Your task to perform on an android device: Empty the shopping cart on walmart.com. Add macbook pro to the cart on walmart.com Image 0: 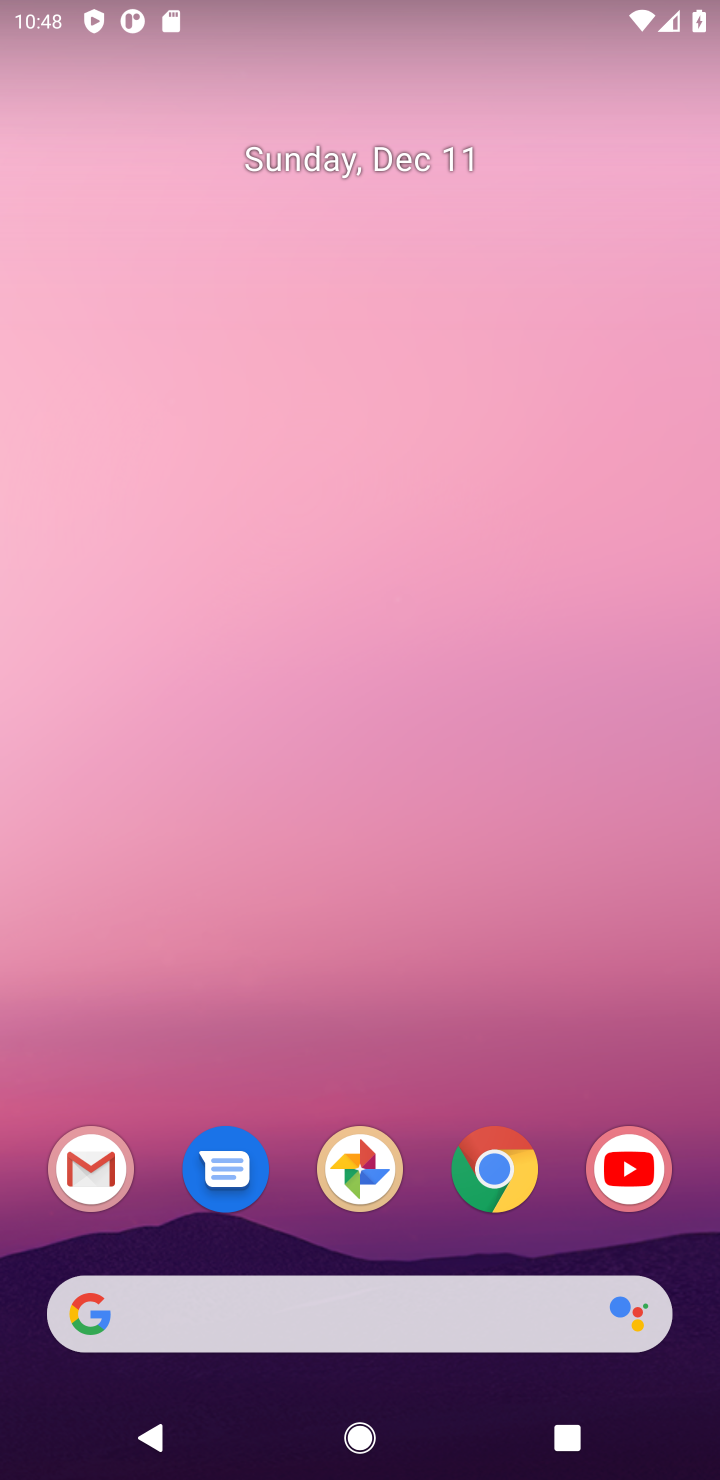
Step 0: click (487, 1171)
Your task to perform on an android device: Empty the shopping cart on walmart.com. Add macbook pro to the cart on walmart.com Image 1: 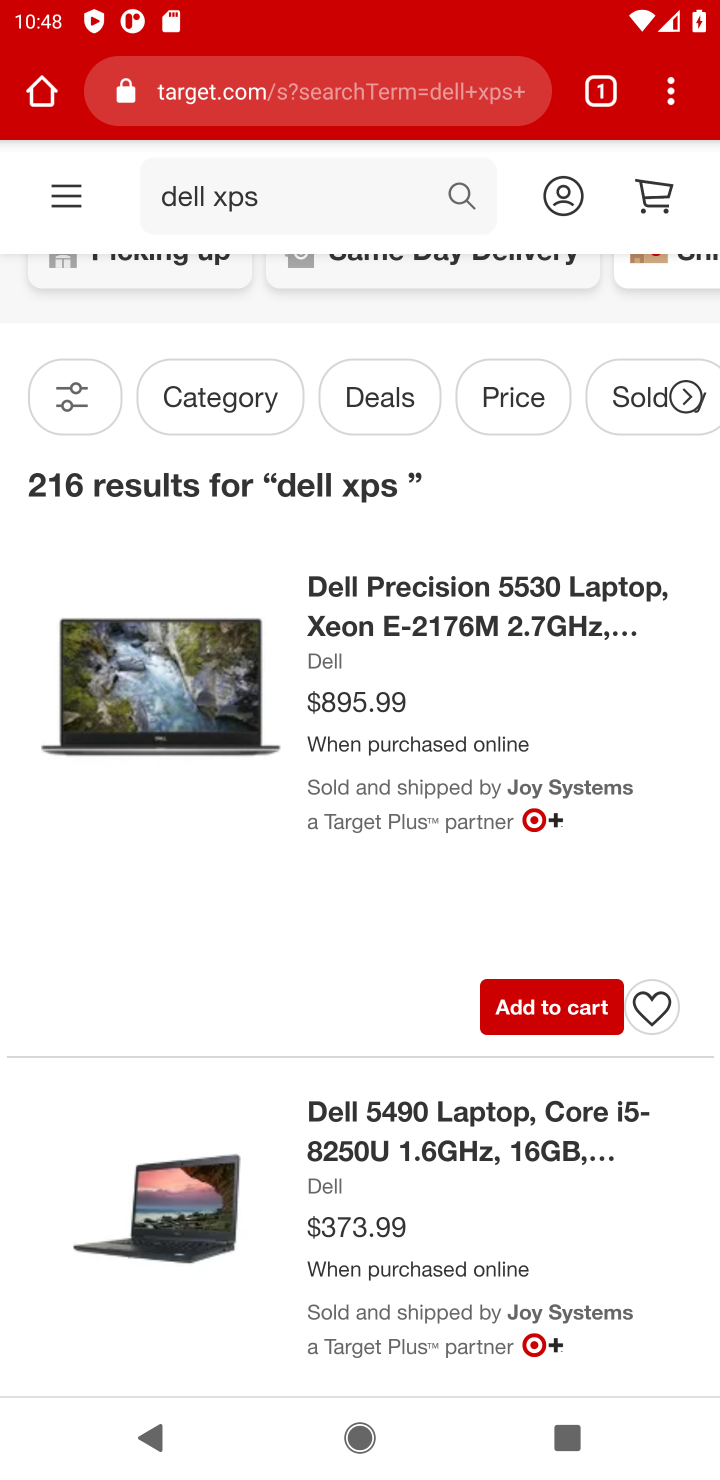
Step 1: click (281, 98)
Your task to perform on an android device: Empty the shopping cart on walmart.com. Add macbook pro to the cart on walmart.com Image 2: 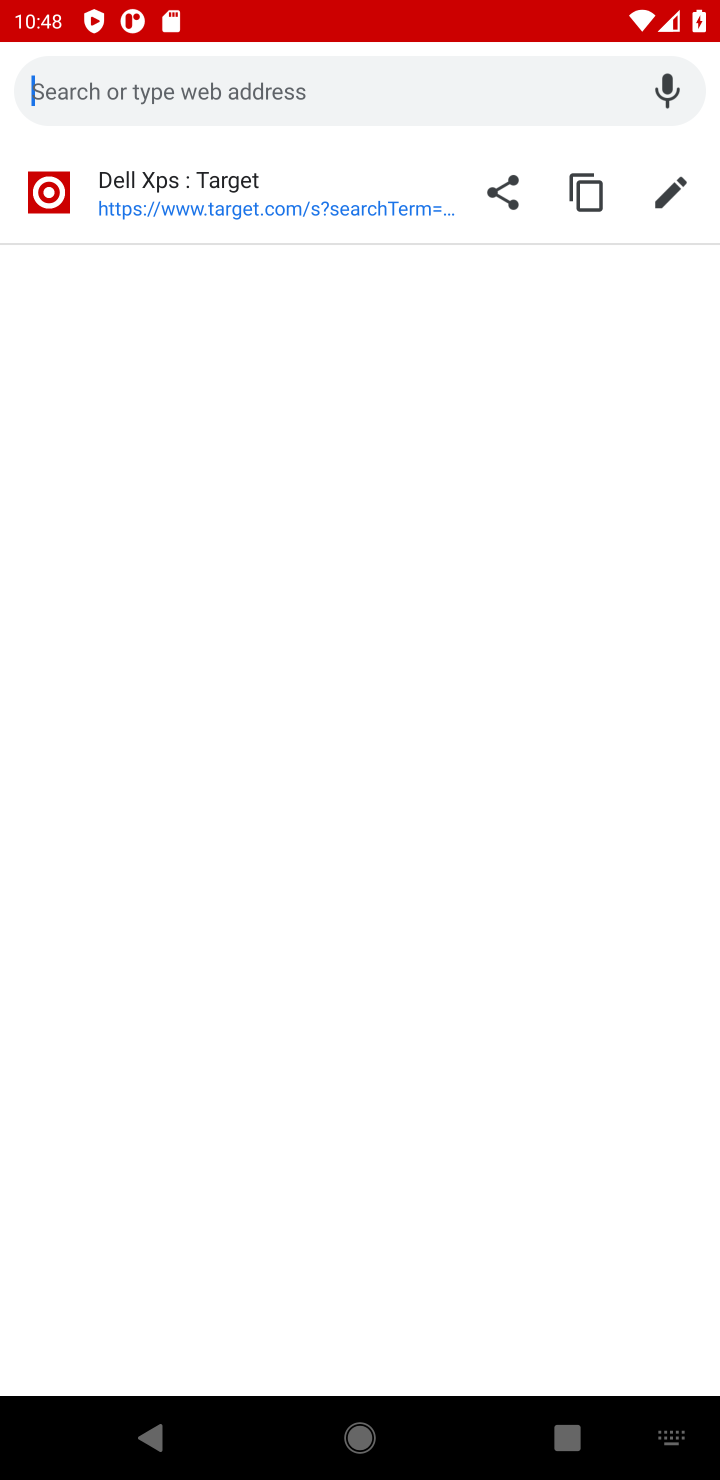
Step 2: type "walmart.com"
Your task to perform on an android device: Empty the shopping cart on walmart.com. Add macbook pro to the cart on walmart.com Image 3: 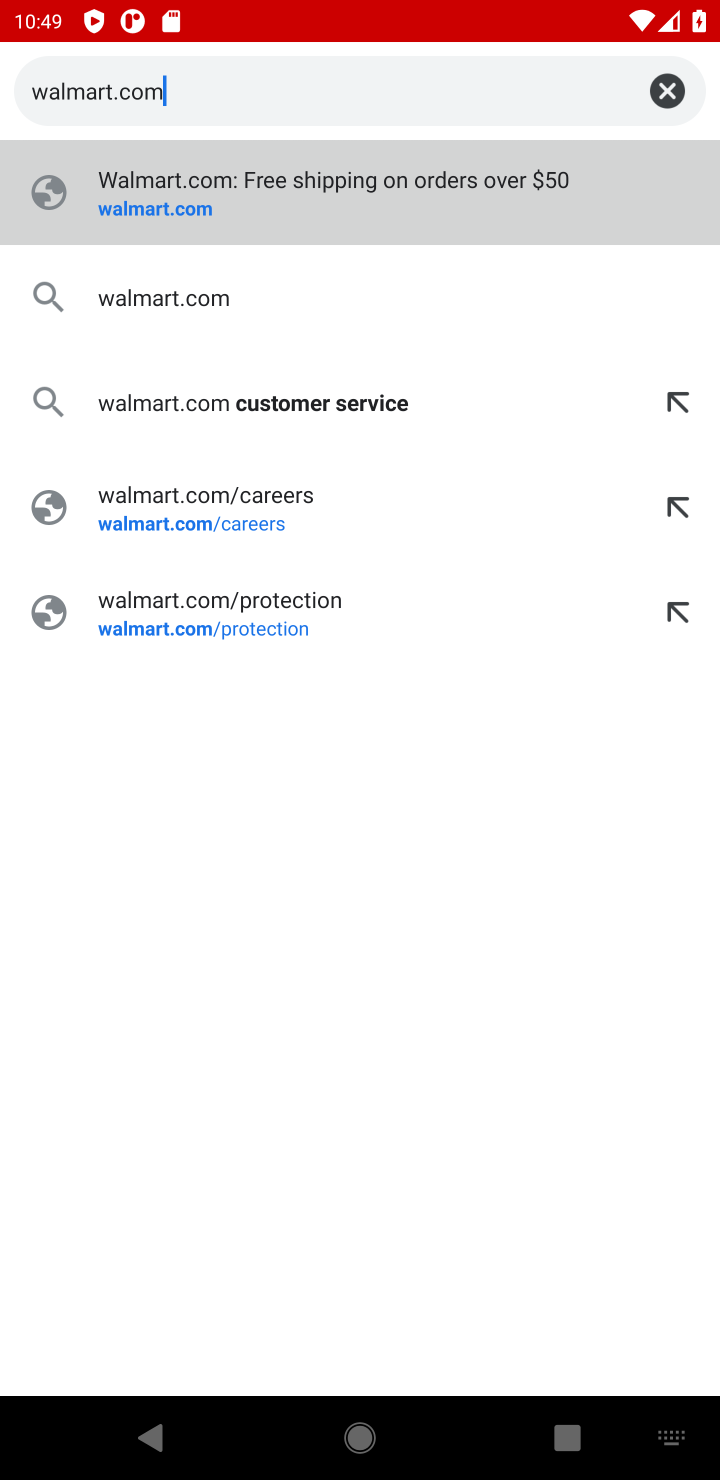
Step 3: click (131, 209)
Your task to perform on an android device: Empty the shopping cart on walmart.com. Add macbook pro to the cart on walmart.com Image 4: 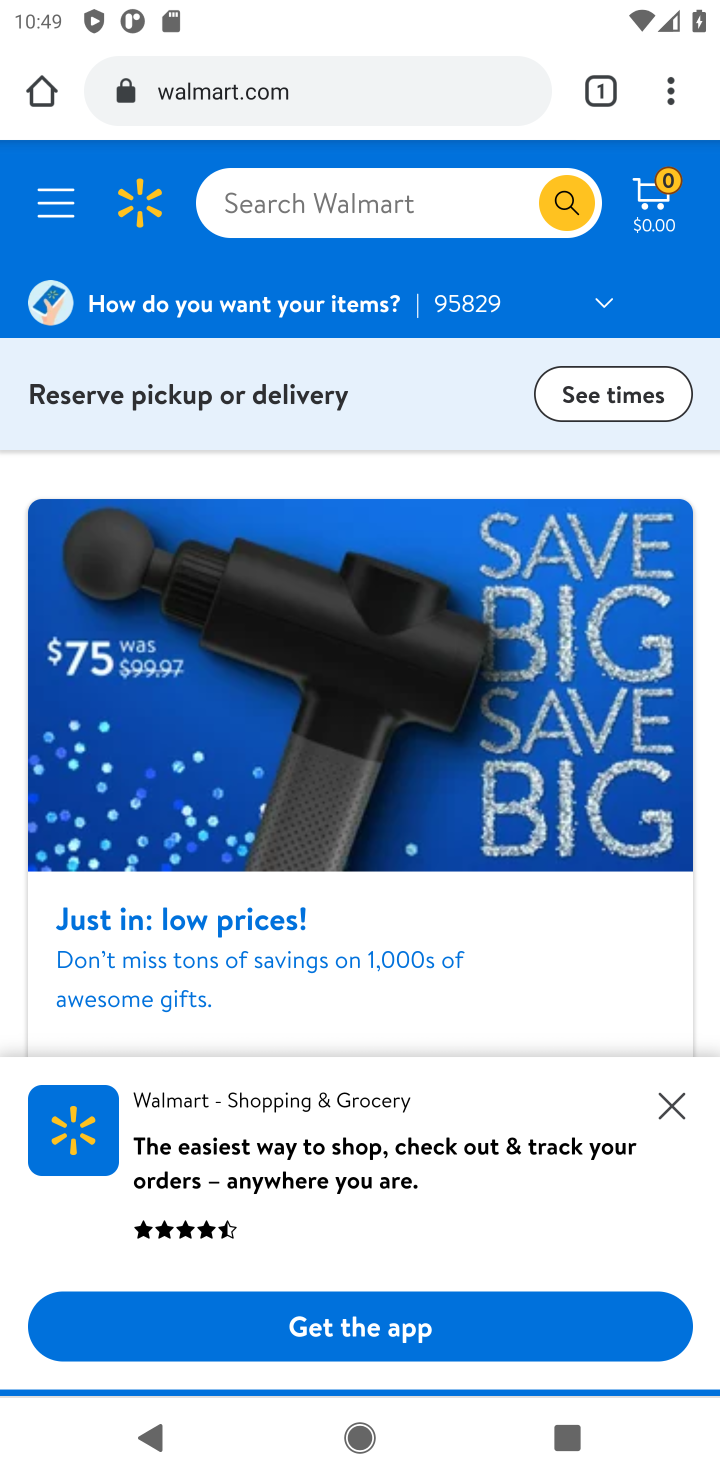
Step 4: click (652, 192)
Your task to perform on an android device: Empty the shopping cart on walmart.com. Add macbook pro to the cart on walmart.com Image 5: 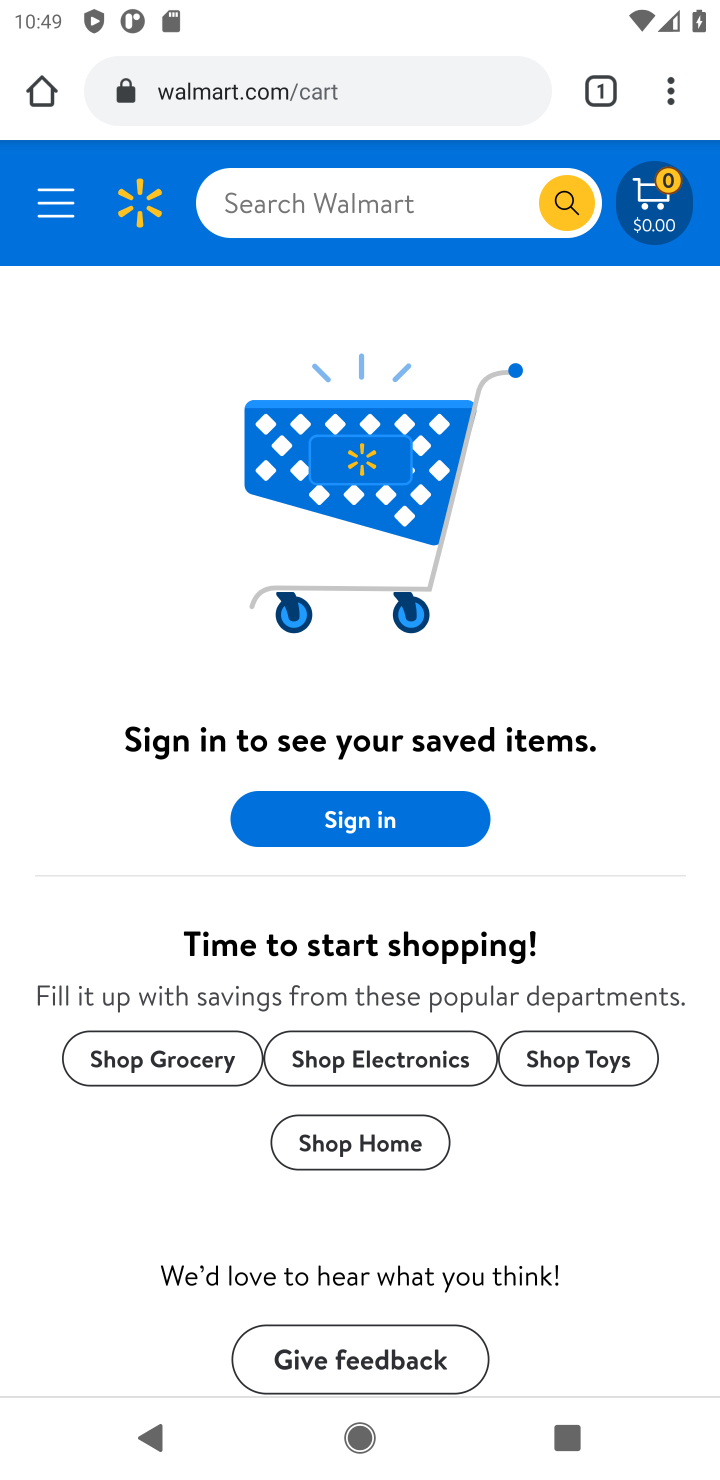
Step 5: click (336, 211)
Your task to perform on an android device: Empty the shopping cart on walmart.com. Add macbook pro to the cart on walmart.com Image 6: 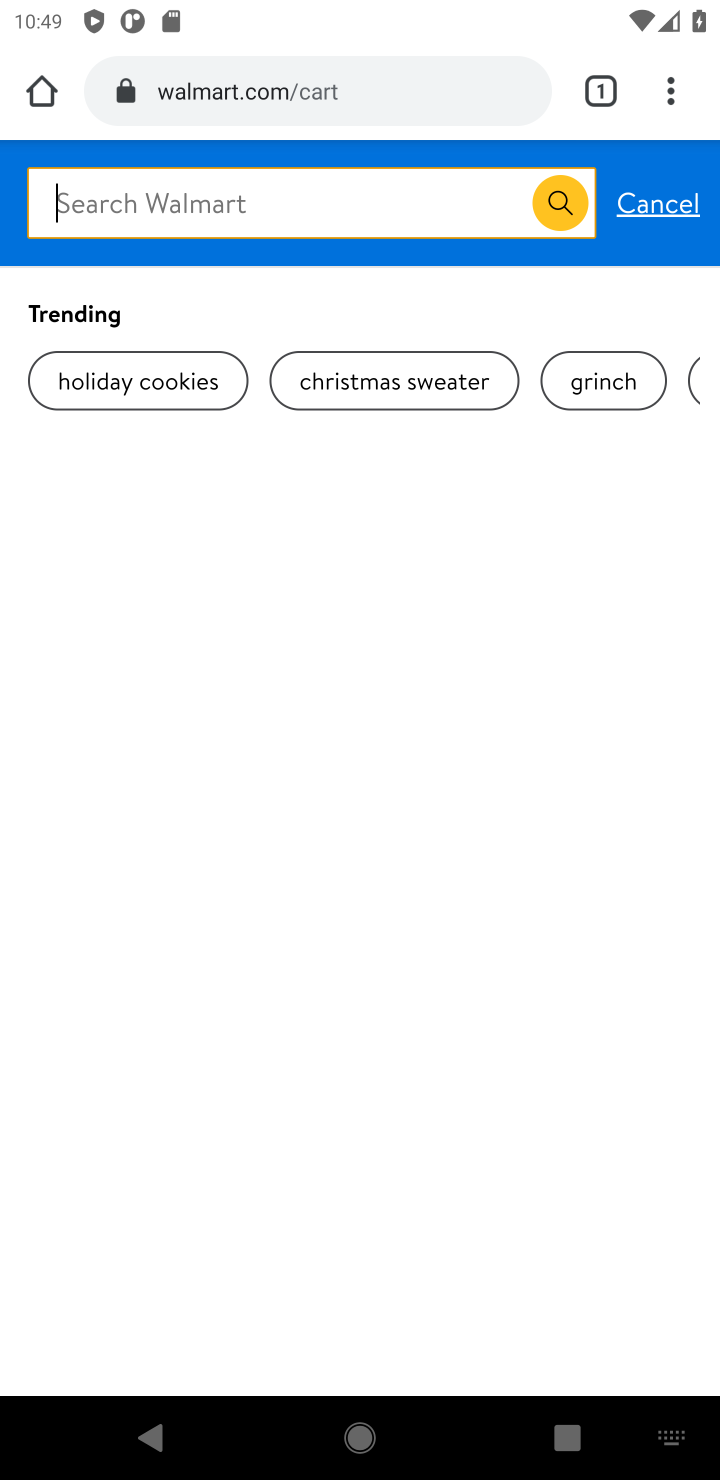
Step 6: type "macbook pro"
Your task to perform on an android device: Empty the shopping cart on walmart.com. Add macbook pro to the cart on walmart.com Image 7: 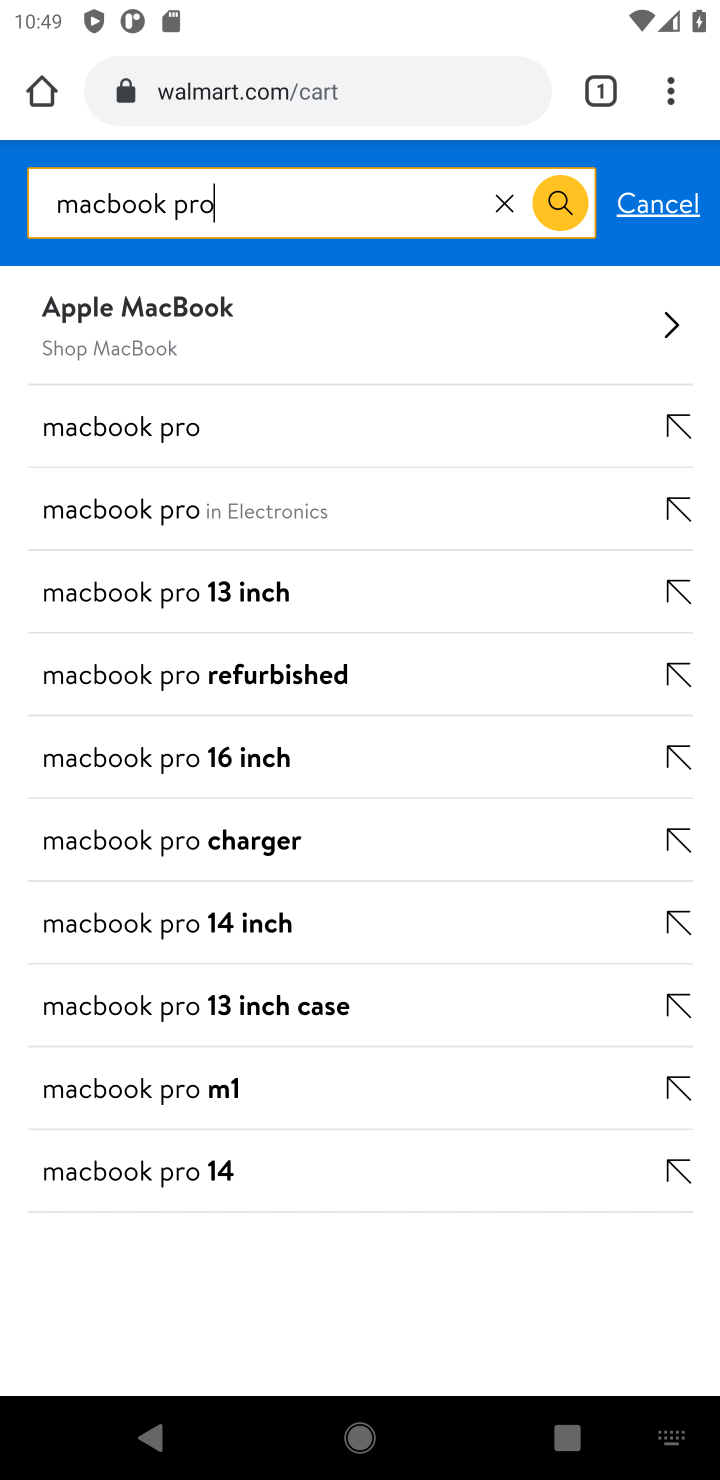
Step 7: click (174, 442)
Your task to perform on an android device: Empty the shopping cart on walmart.com. Add macbook pro to the cart on walmart.com Image 8: 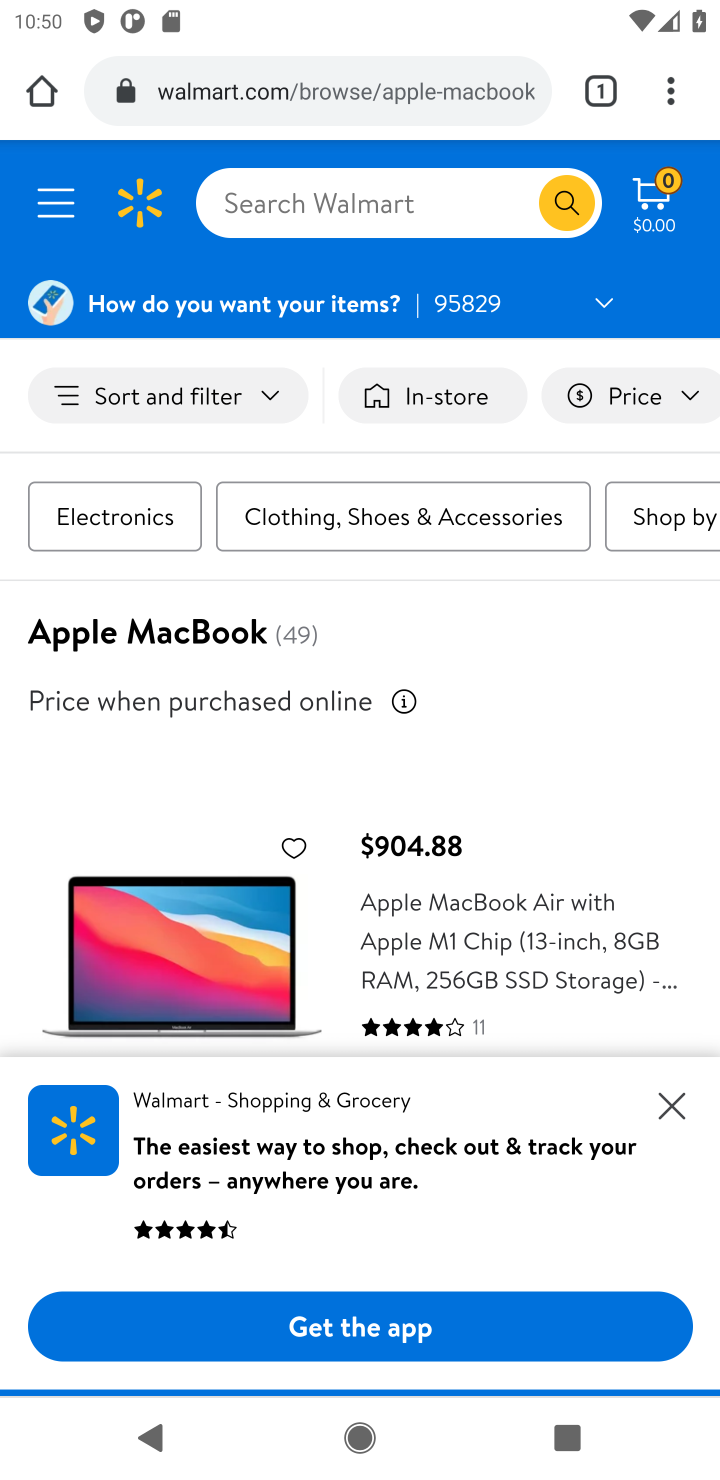
Step 8: drag from (423, 947) to (410, 640)
Your task to perform on an android device: Empty the shopping cart on walmart.com. Add macbook pro to the cart on walmart.com Image 9: 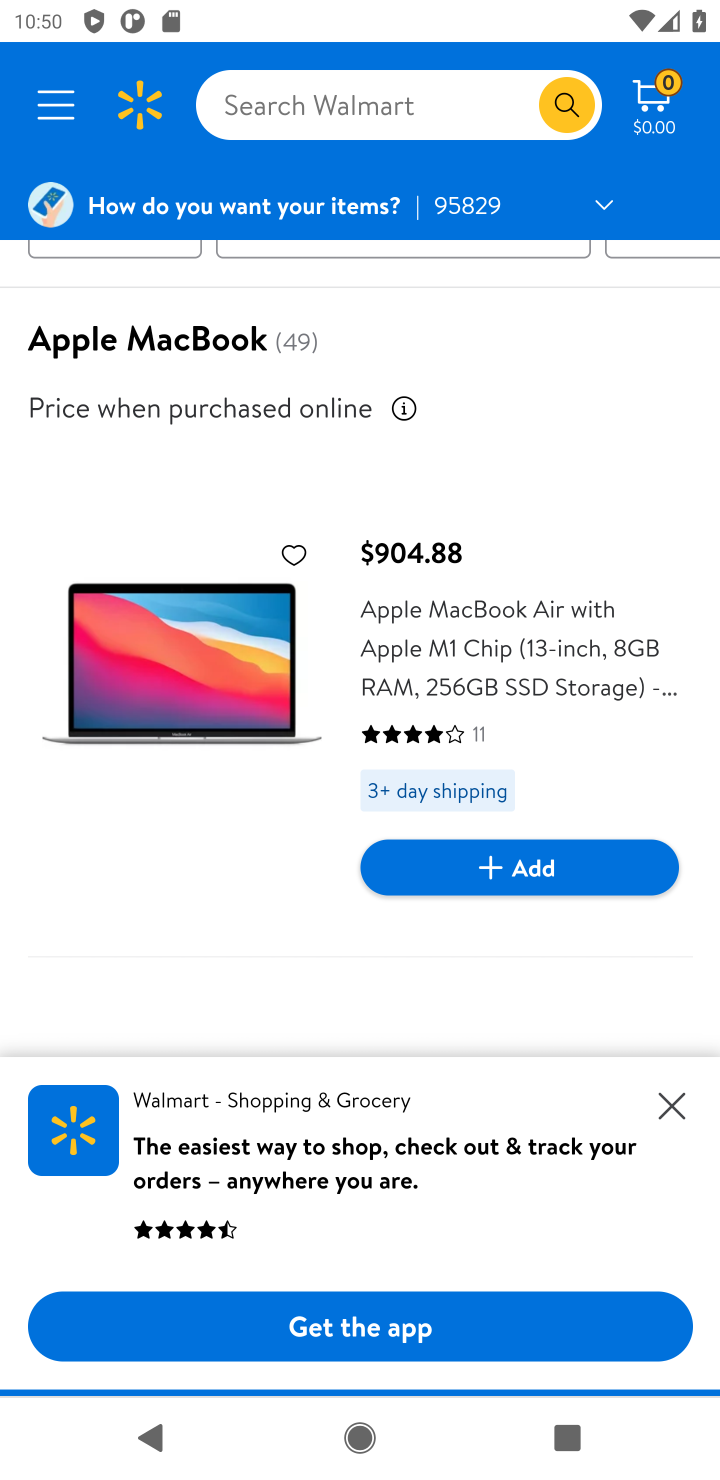
Step 9: drag from (412, 995) to (412, 504)
Your task to perform on an android device: Empty the shopping cart on walmart.com. Add macbook pro to the cart on walmart.com Image 10: 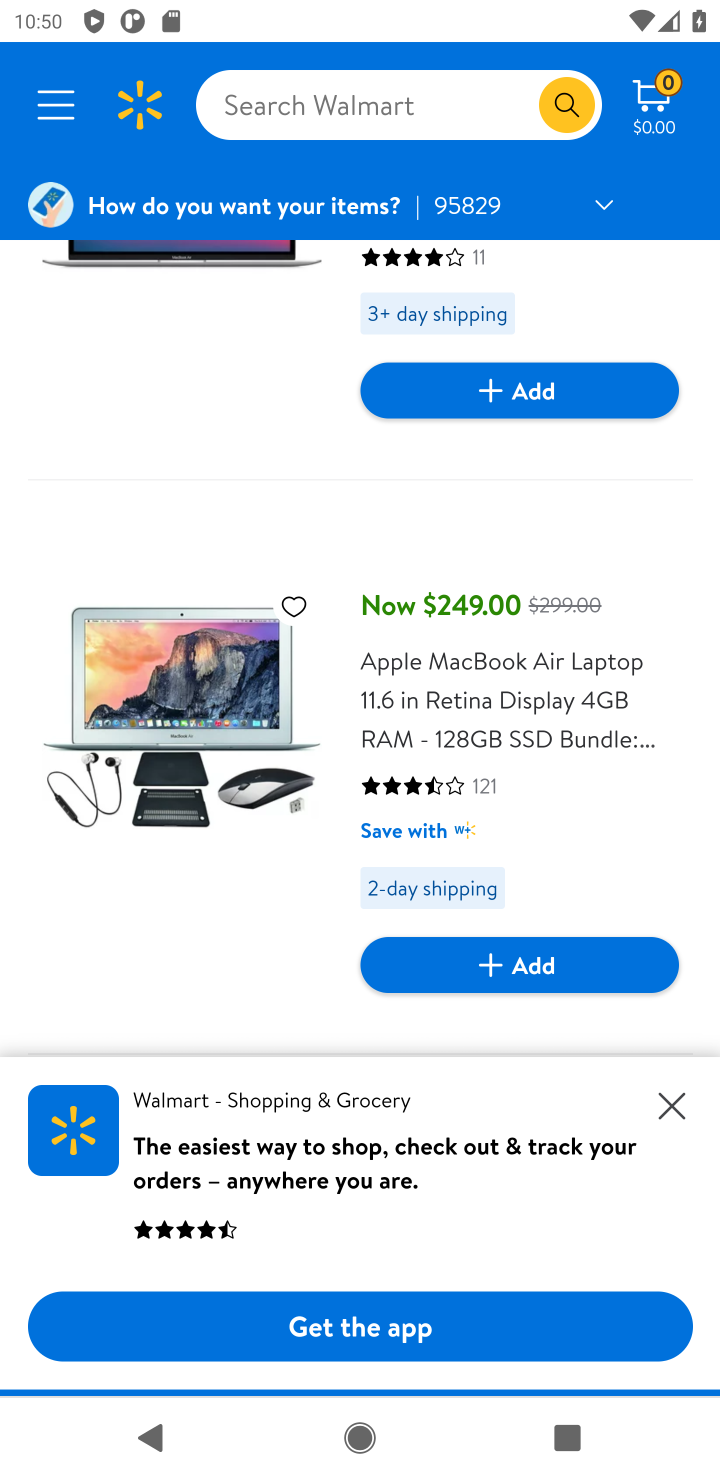
Step 10: click (356, 113)
Your task to perform on an android device: Empty the shopping cart on walmart.com. Add macbook pro to the cart on walmart.com Image 11: 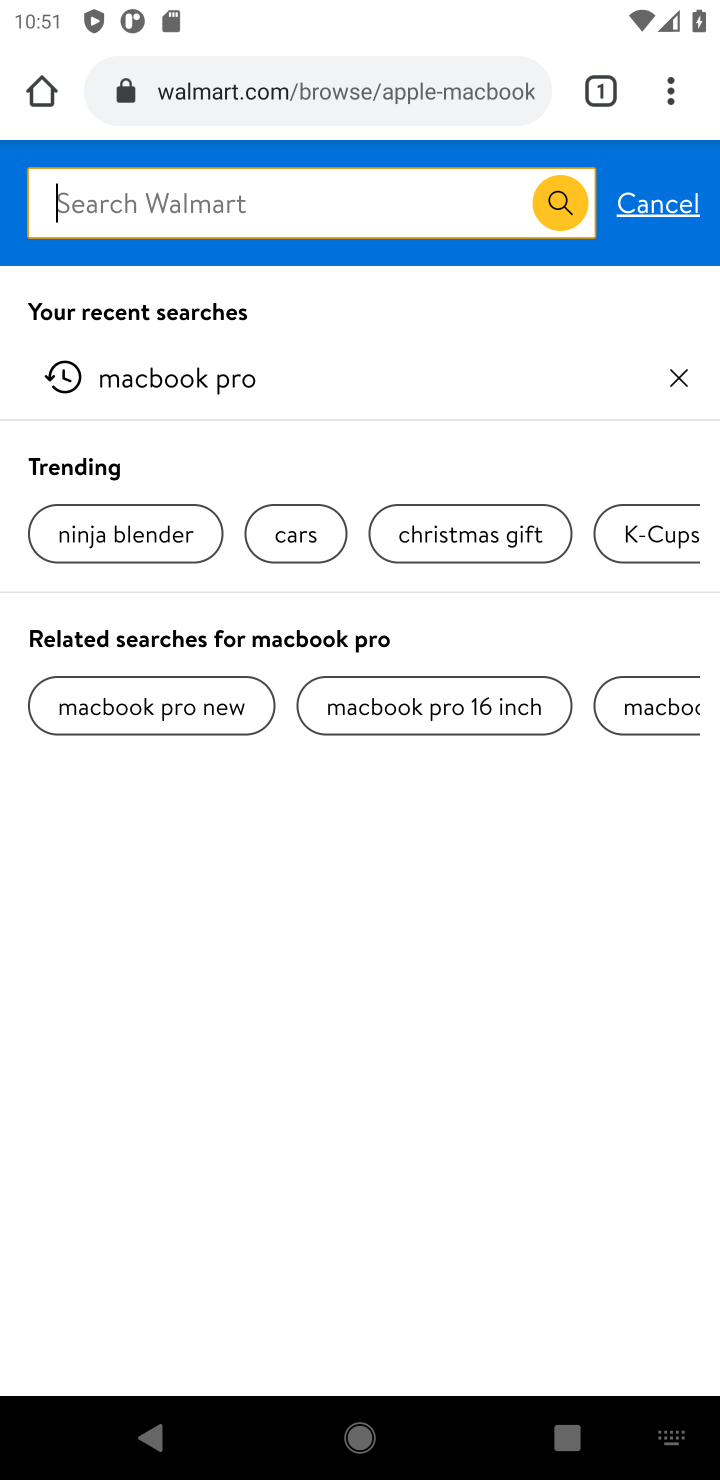
Step 11: click (201, 377)
Your task to perform on an android device: Empty the shopping cart on walmart.com. Add macbook pro to the cart on walmart.com Image 12: 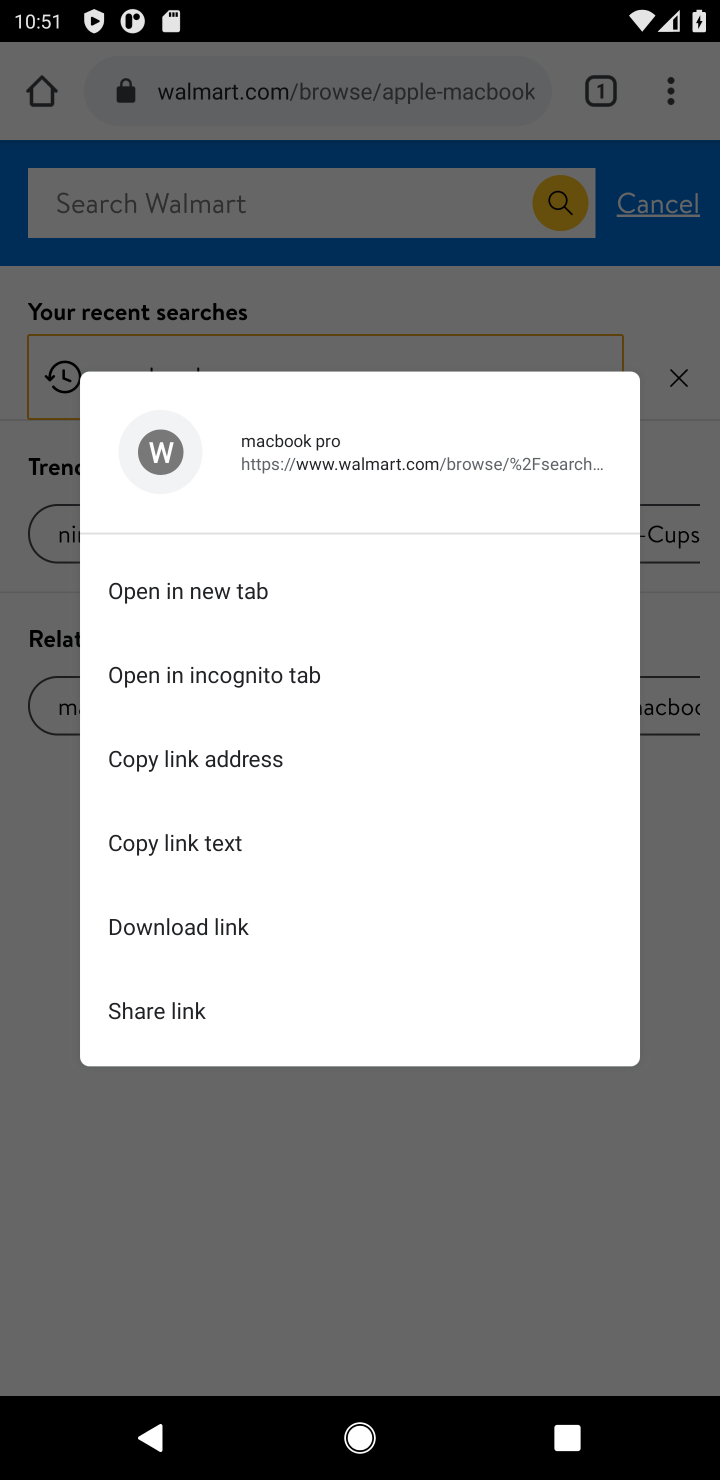
Step 12: click (59, 373)
Your task to perform on an android device: Empty the shopping cart on walmart.com. Add macbook pro to the cart on walmart.com Image 13: 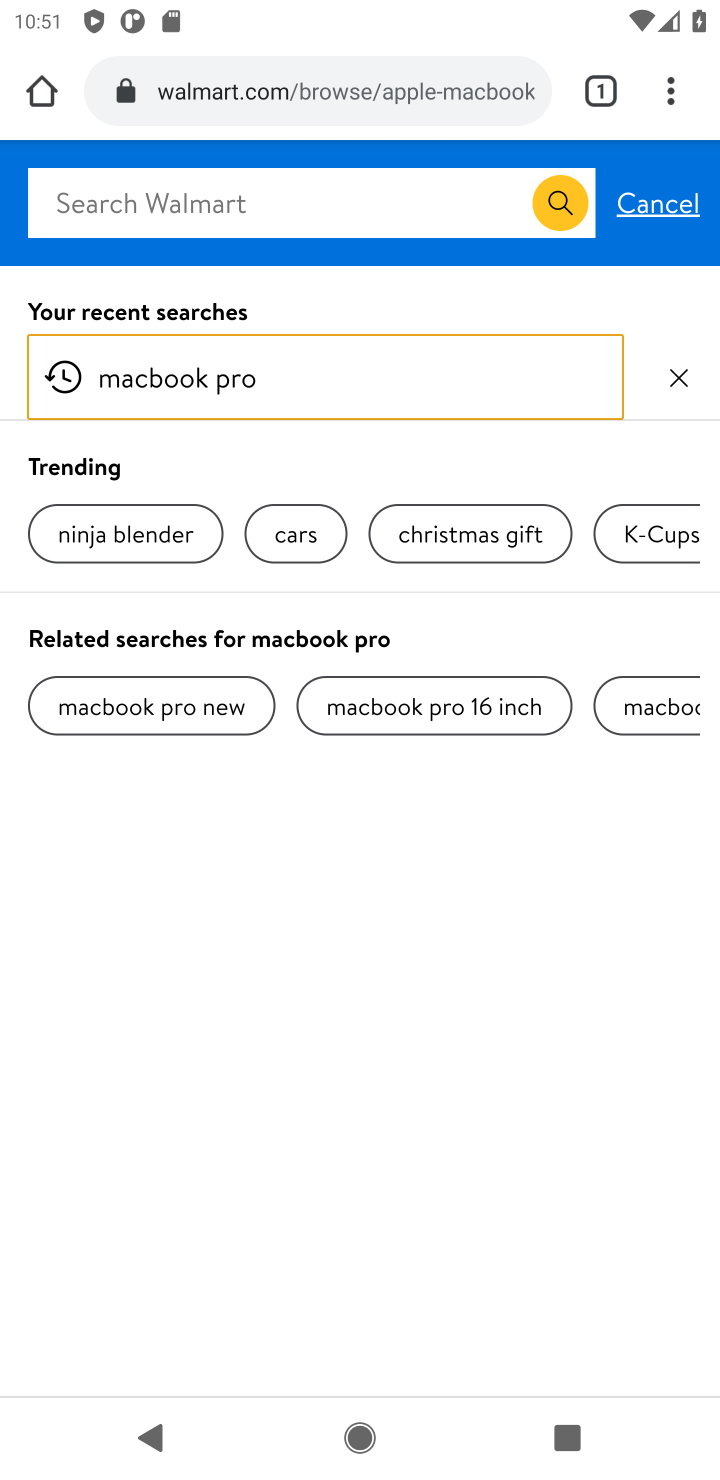
Step 13: click (120, 382)
Your task to perform on an android device: Empty the shopping cart on walmart.com. Add macbook pro to the cart on walmart.com Image 14: 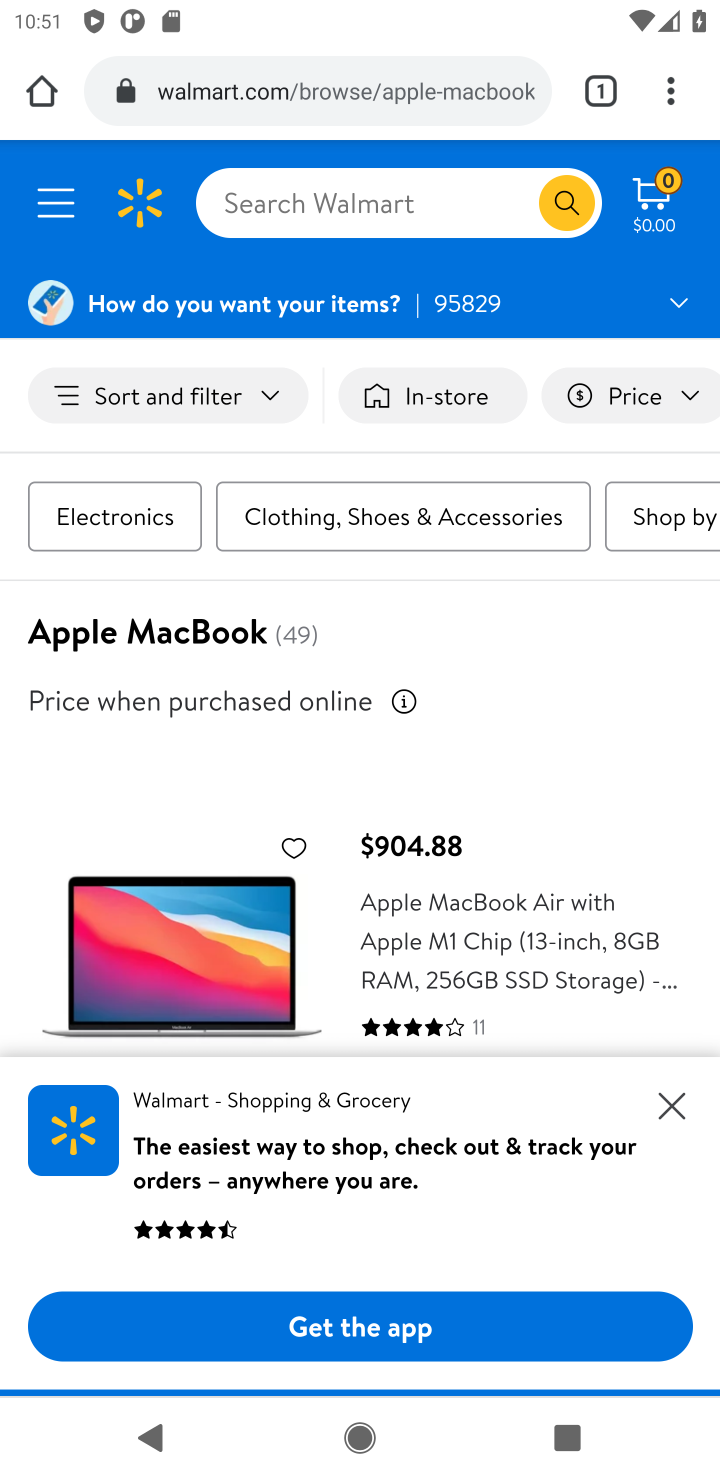
Step 14: drag from (345, 996) to (340, 311)
Your task to perform on an android device: Empty the shopping cart on walmart.com. Add macbook pro to the cart on walmart.com Image 15: 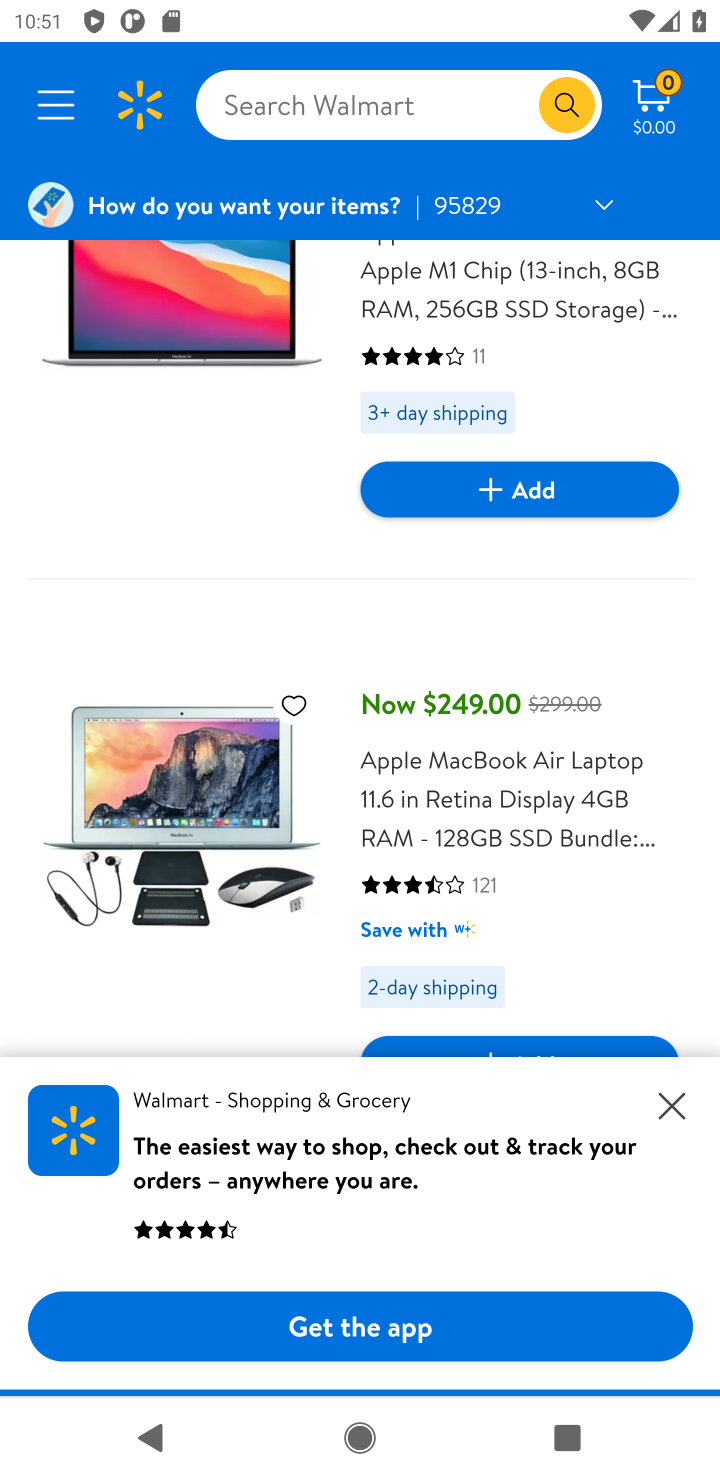
Step 15: drag from (419, 924) to (398, 361)
Your task to perform on an android device: Empty the shopping cart on walmart.com. Add macbook pro to the cart on walmart.com Image 16: 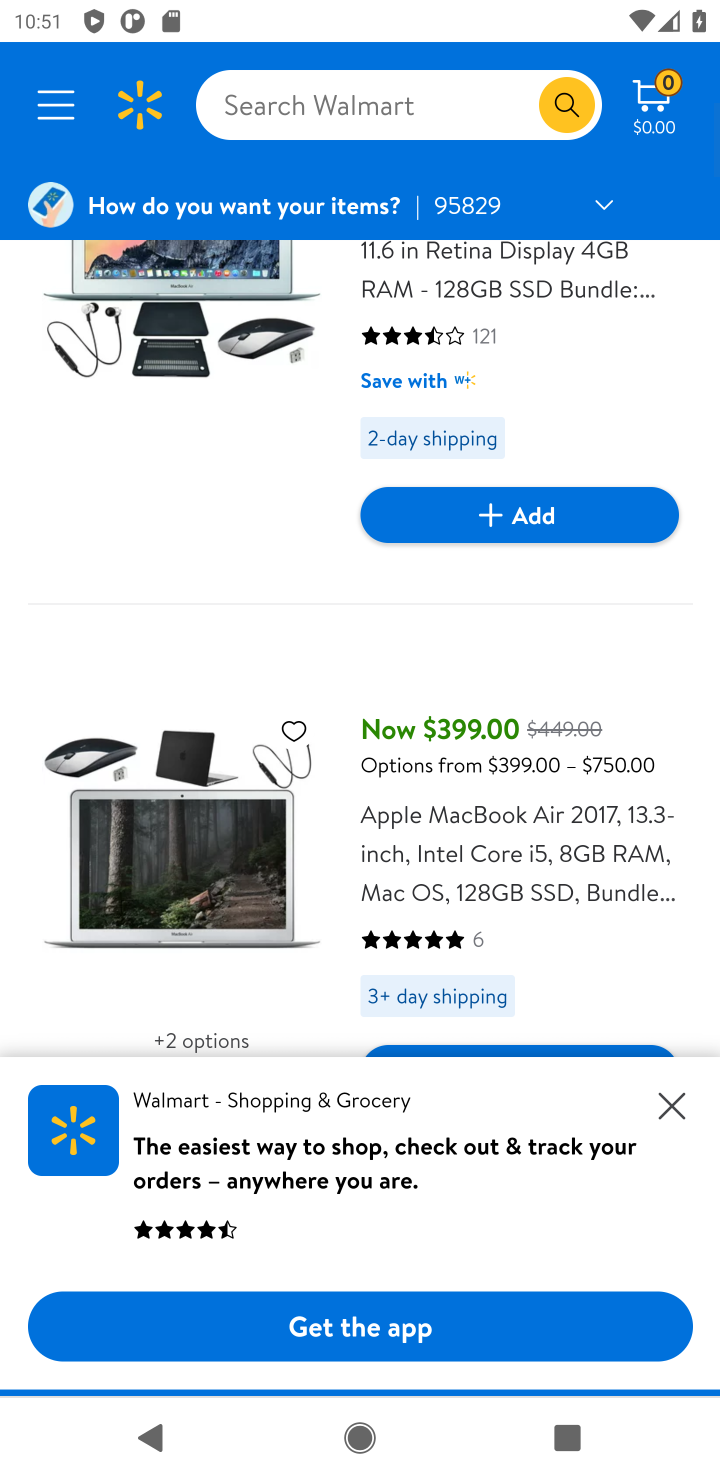
Step 16: drag from (364, 973) to (372, 721)
Your task to perform on an android device: Empty the shopping cart on walmart.com. Add macbook pro to the cart on walmart.com Image 17: 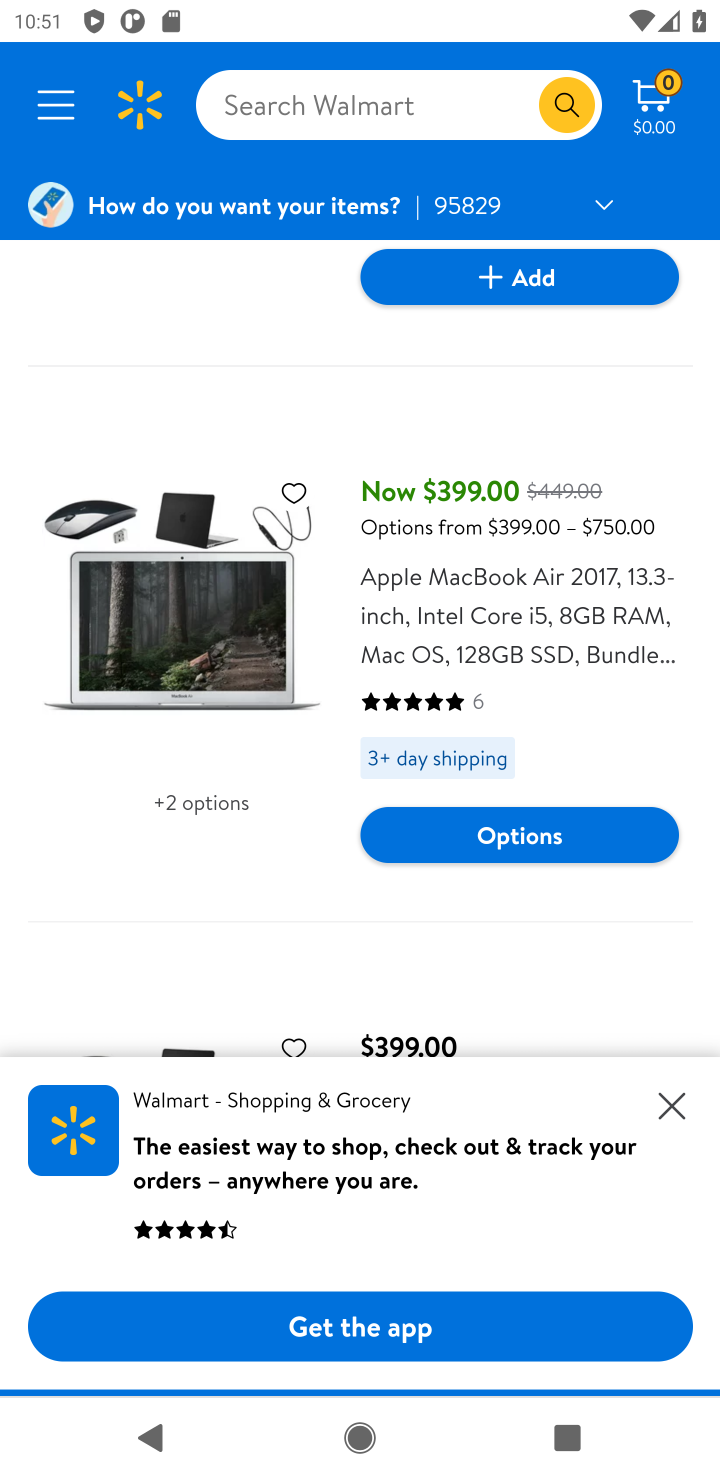
Step 17: drag from (356, 877) to (321, 431)
Your task to perform on an android device: Empty the shopping cart on walmart.com. Add macbook pro to the cart on walmart.com Image 18: 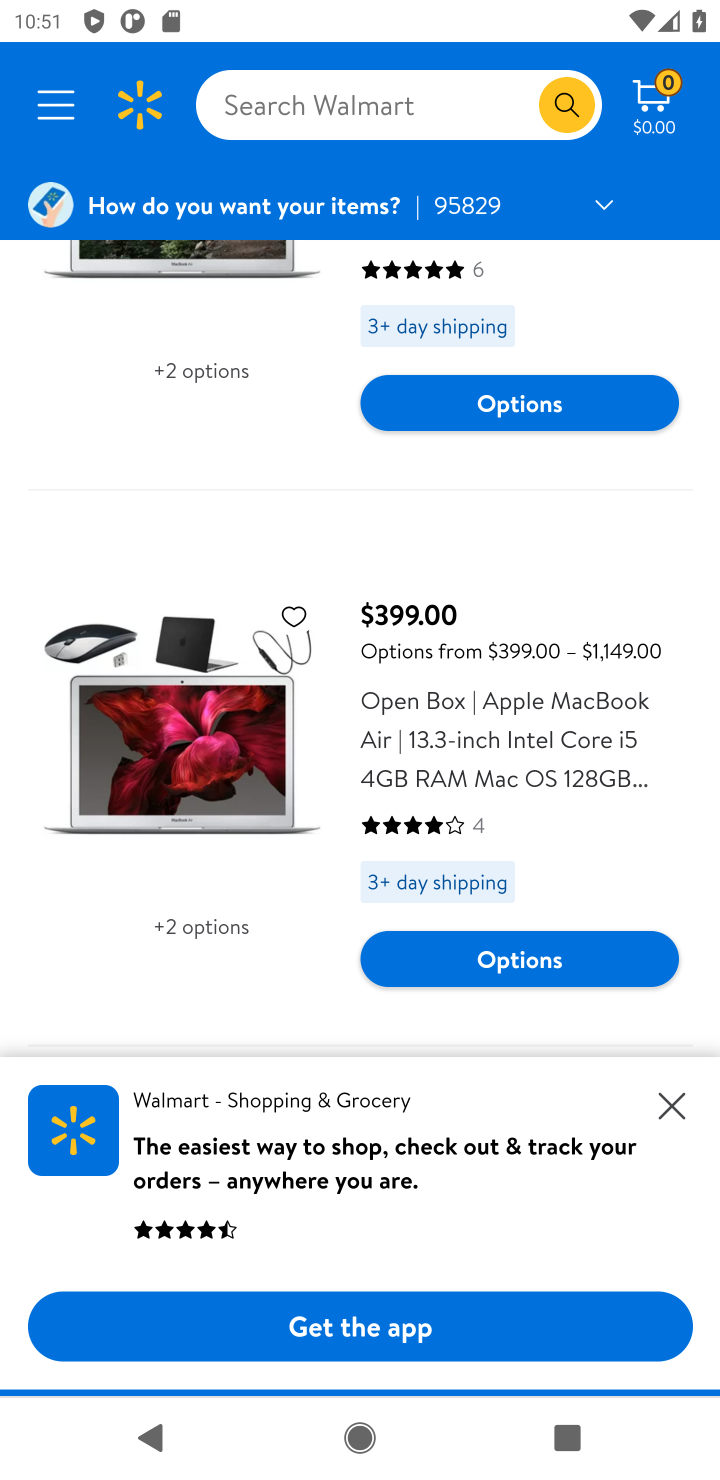
Step 18: drag from (363, 761) to (367, 313)
Your task to perform on an android device: Empty the shopping cart on walmart.com. Add macbook pro to the cart on walmart.com Image 19: 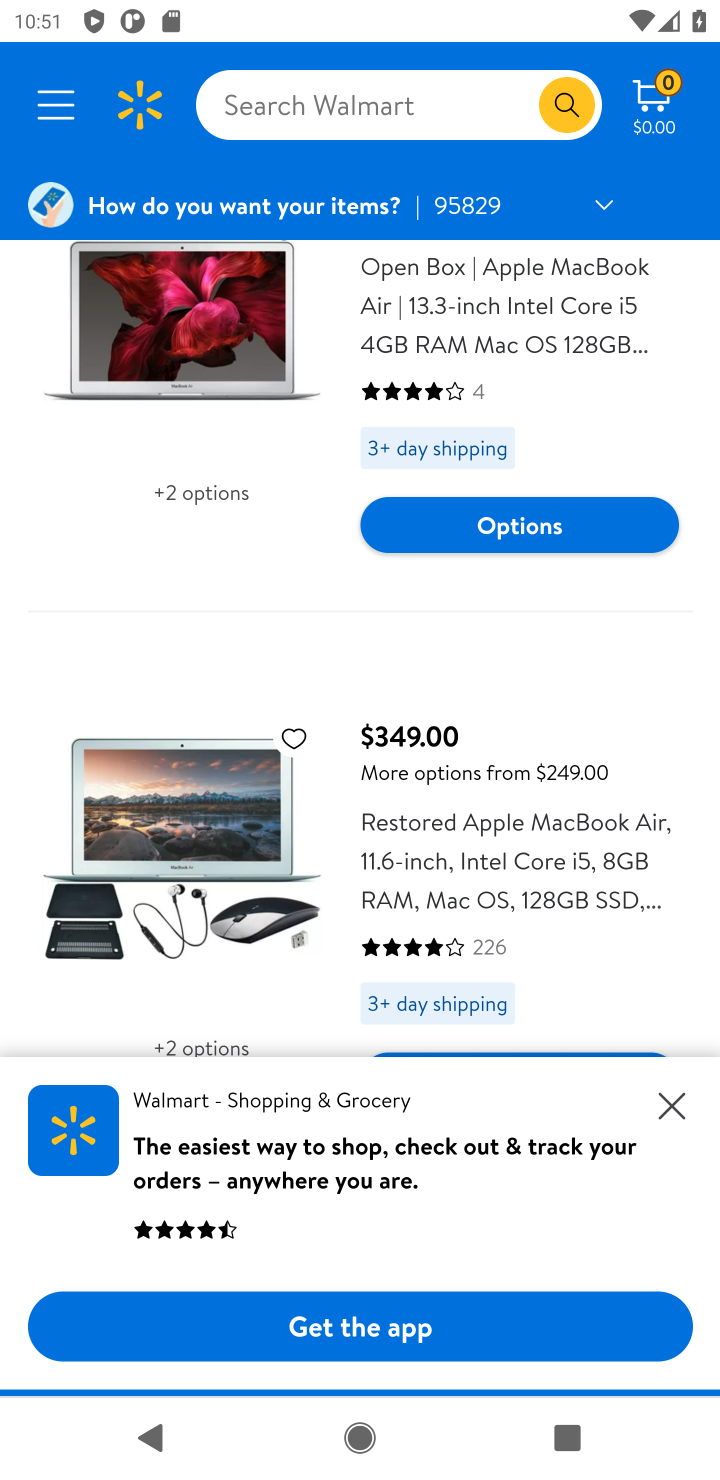
Step 19: drag from (371, 902) to (352, 463)
Your task to perform on an android device: Empty the shopping cart on walmart.com. Add macbook pro to the cart on walmart.com Image 20: 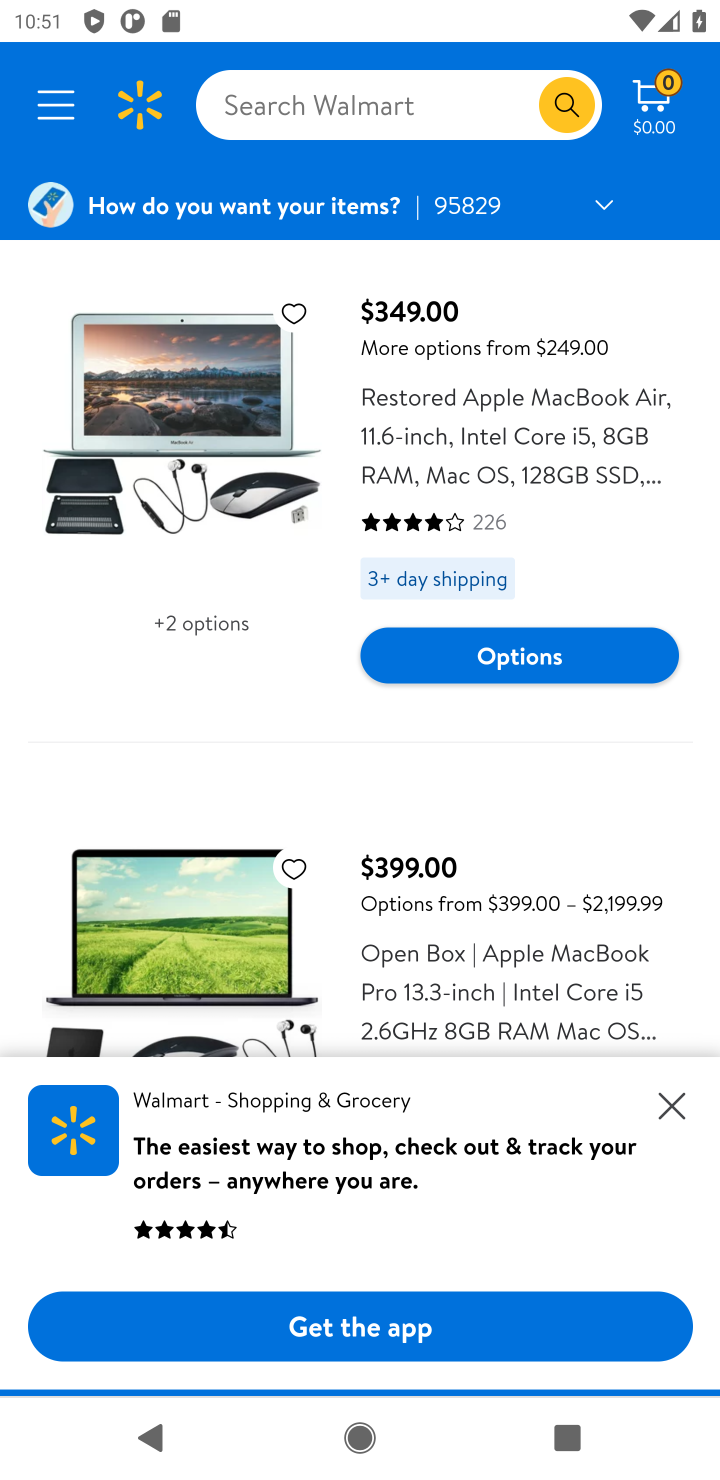
Step 20: drag from (342, 928) to (313, 550)
Your task to perform on an android device: Empty the shopping cart on walmart.com. Add macbook pro to the cart on walmart.com Image 21: 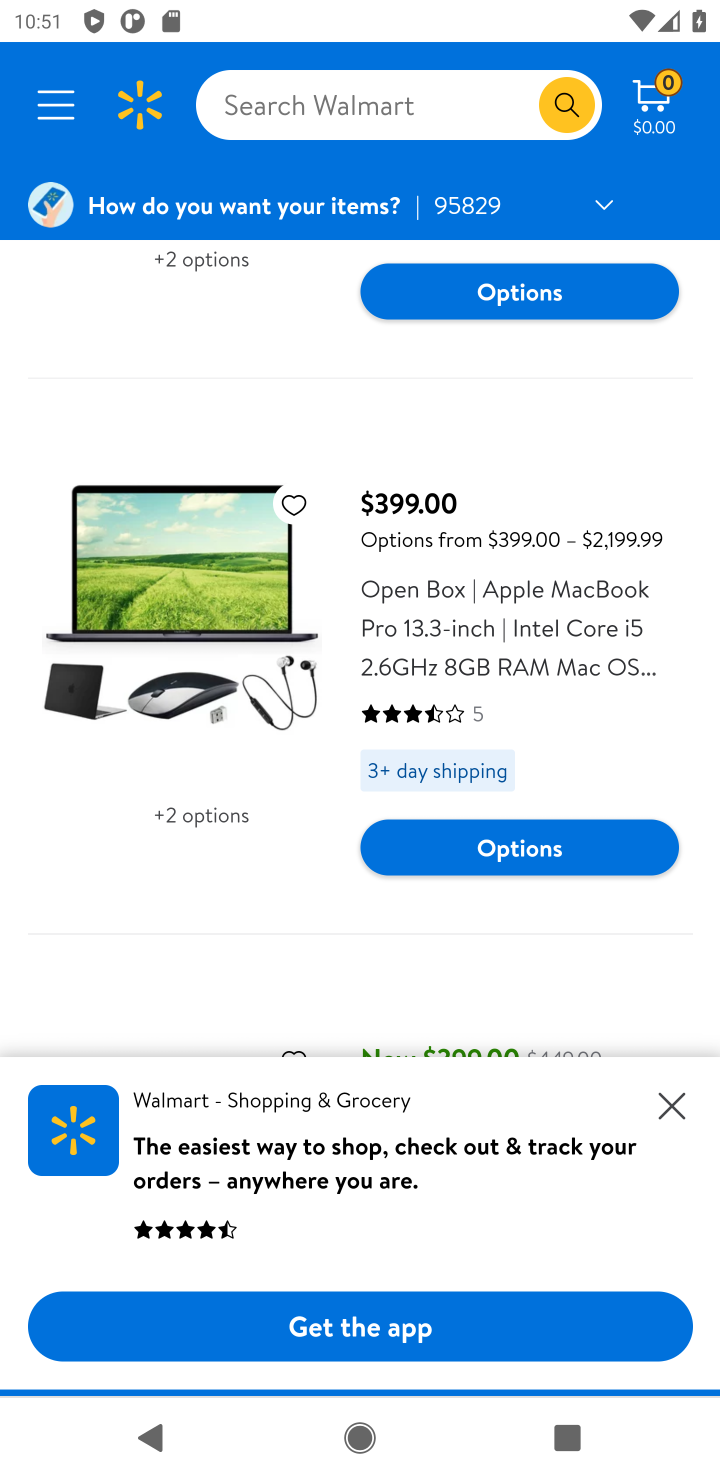
Step 21: click (499, 625)
Your task to perform on an android device: Empty the shopping cart on walmart.com. Add macbook pro to the cart on walmart.com Image 22: 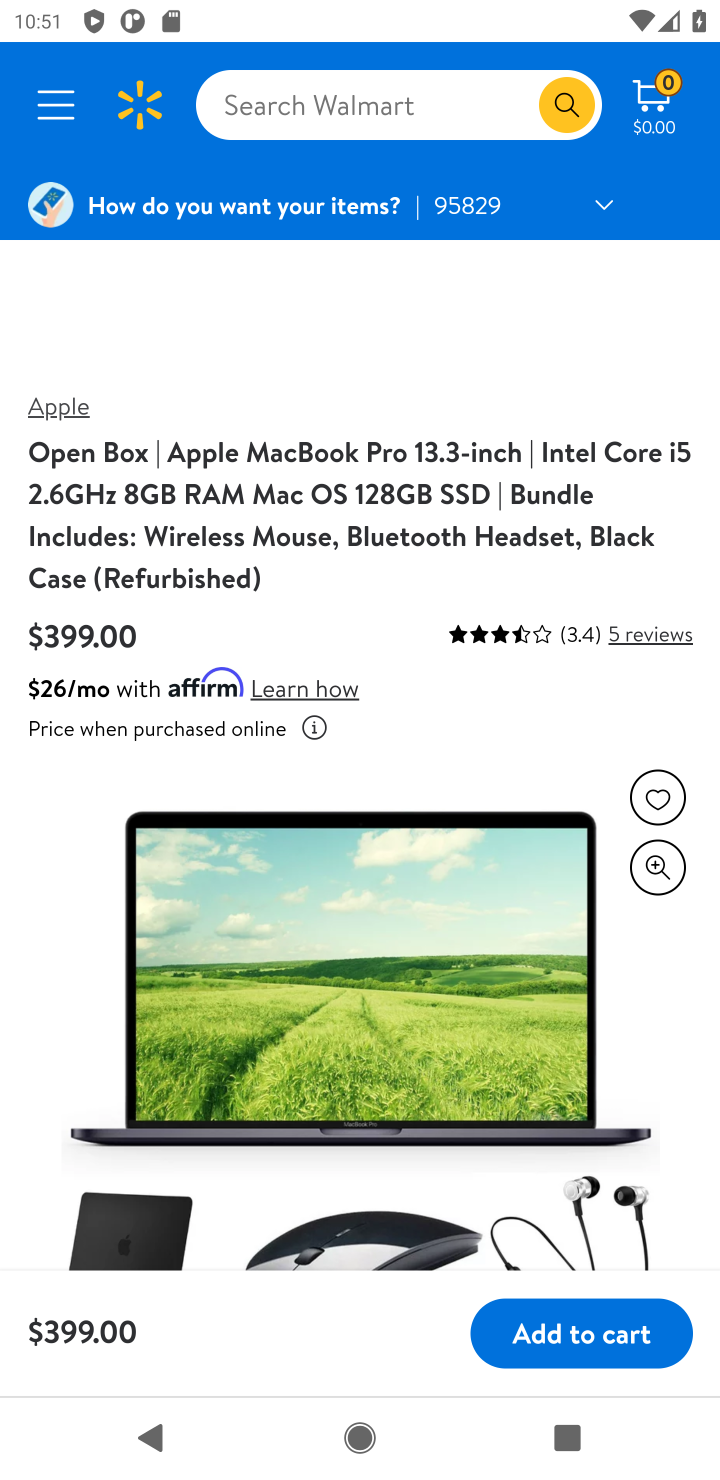
Step 22: click (576, 1339)
Your task to perform on an android device: Empty the shopping cart on walmart.com. Add macbook pro to the cart on walmart.com Image 23: 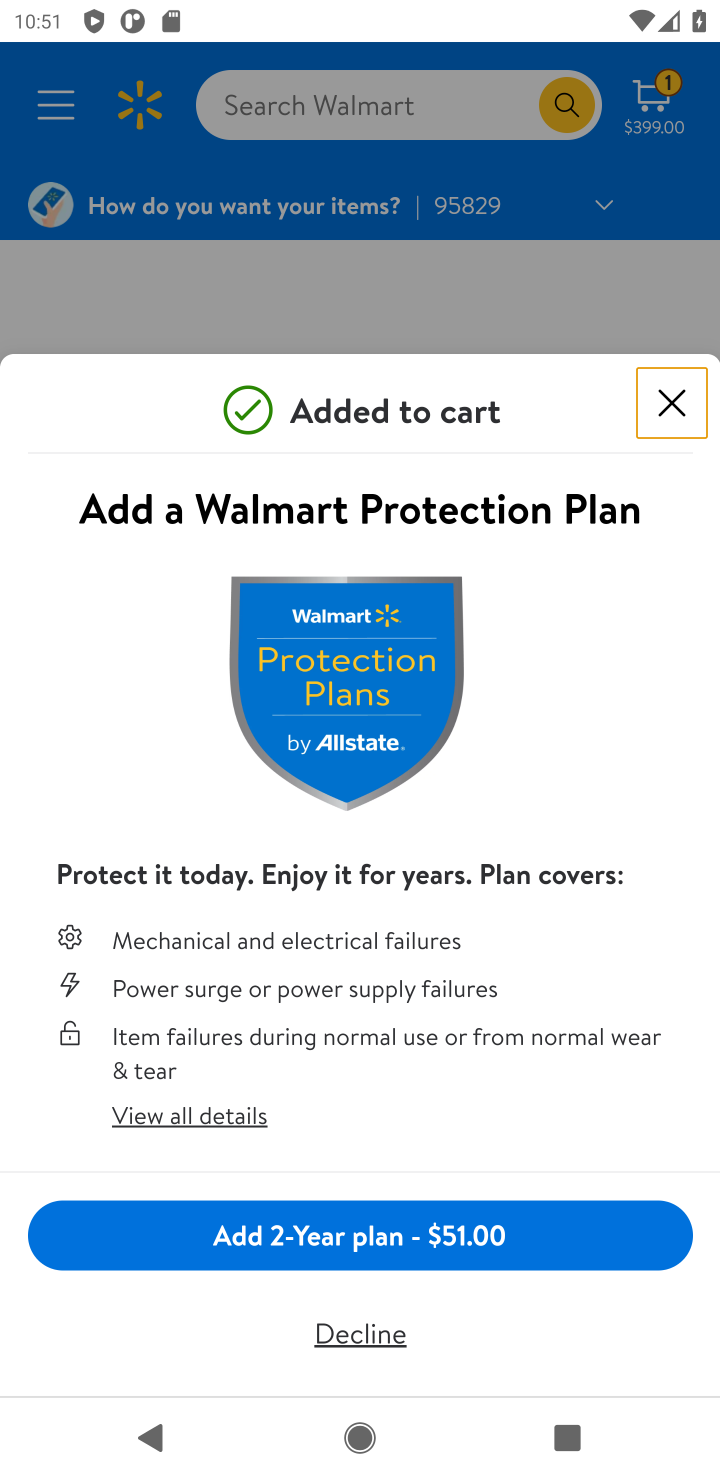
Step 23: task complete